Your task to perform on an android device: Empty the shopping cart on bestbuy.com. Image 0: 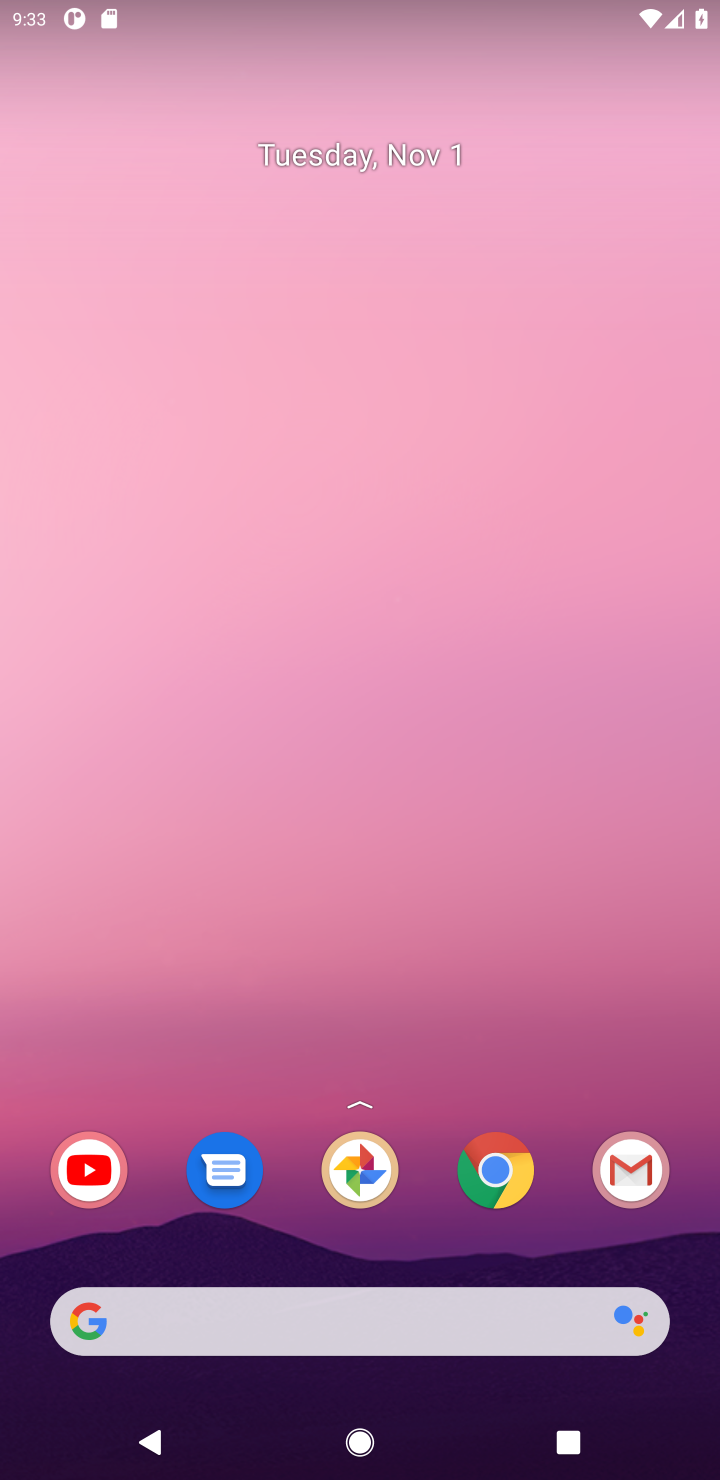
Step 0: click (494, 1182)
Your task to perform on an android device: Empty the shopping cart on bestbuy.com. Image 1: 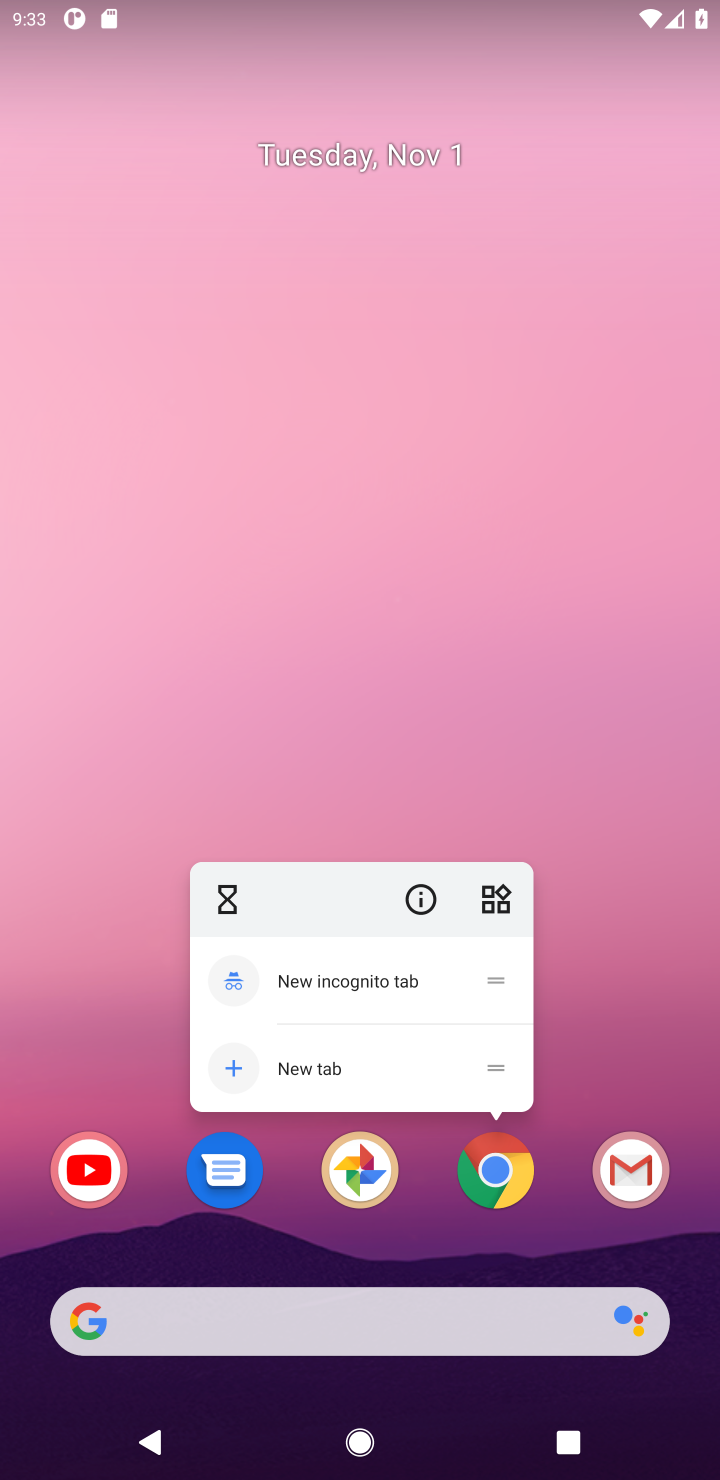
Step 1: click (506, 1189)
Your task to perform on an android device: Empty the shopping cart on bestbuy.com. Image 2: 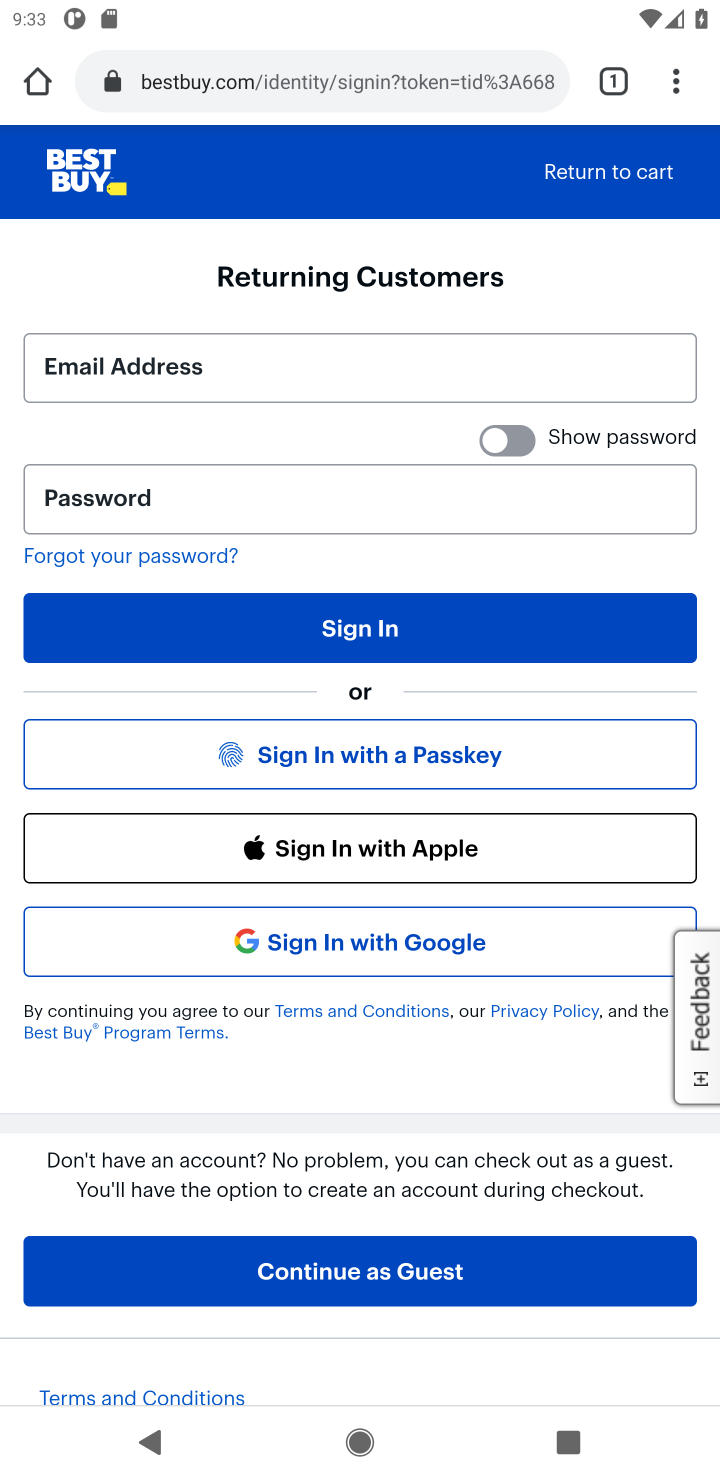
Step 2: click (387, 44)
Your task to perform on an android device: Empty the shopping cart on bestbuy.com. Image 3: 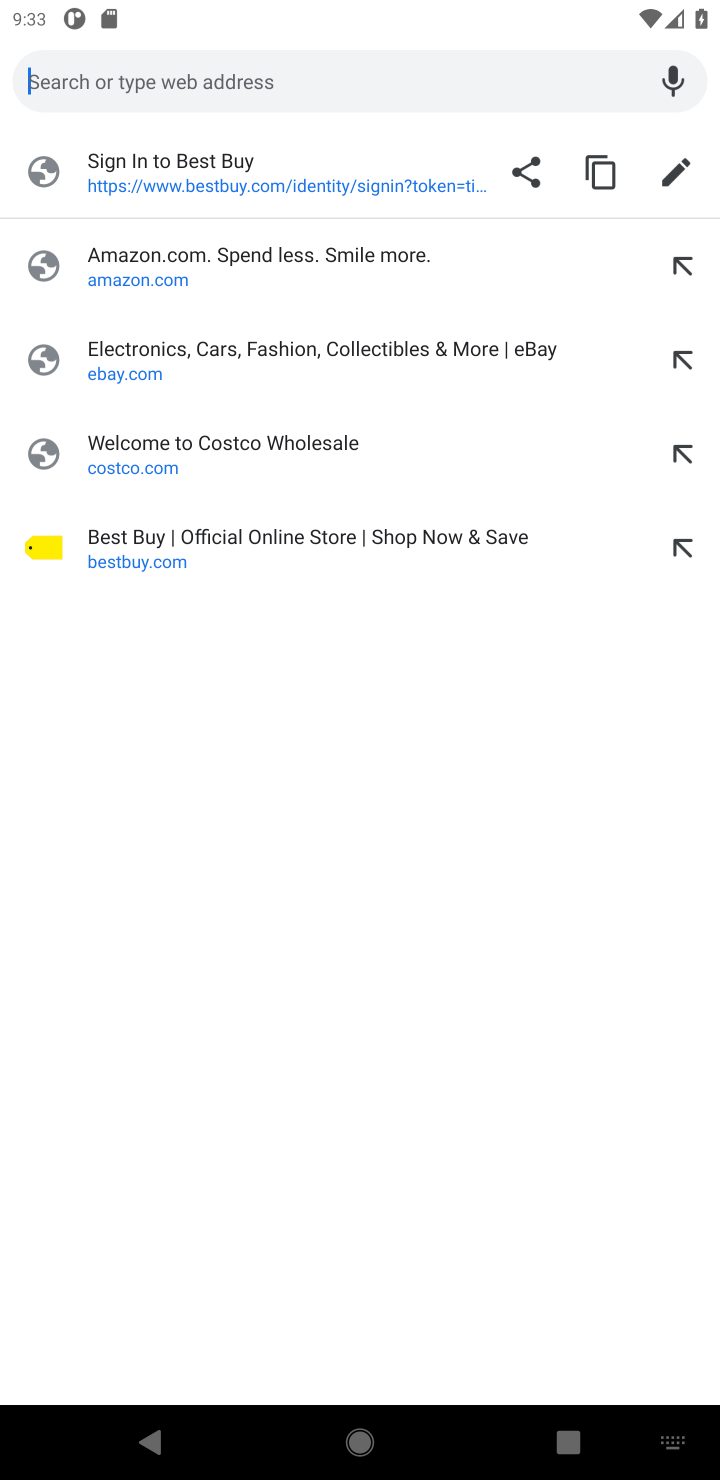
Step 3: type "bestbuy.com"
Your task to perform on an android device: Empty the shopping cart on bestbuy.com. Image 4: 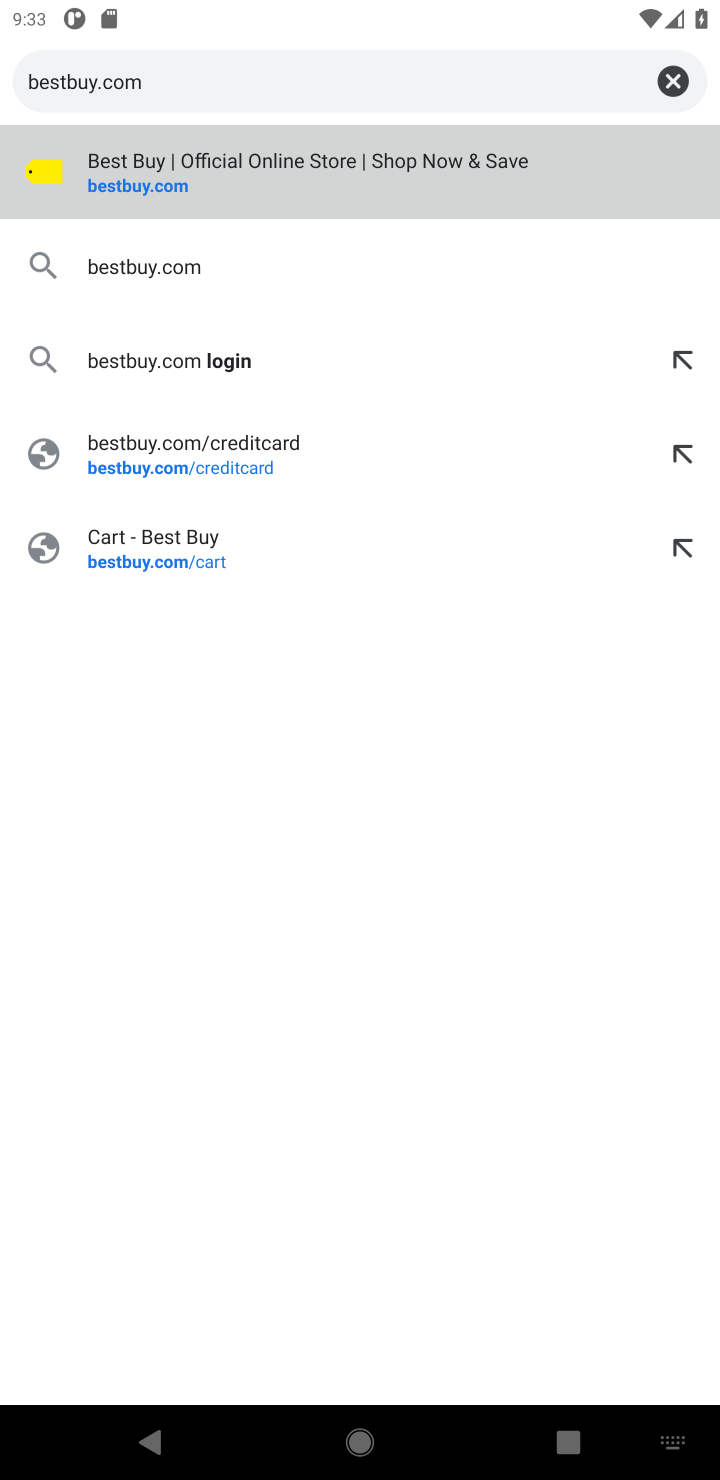
Step 4: press enter
Your task to perform on an android device: Empty the shopping cart on bestbuy.com. Image 5: 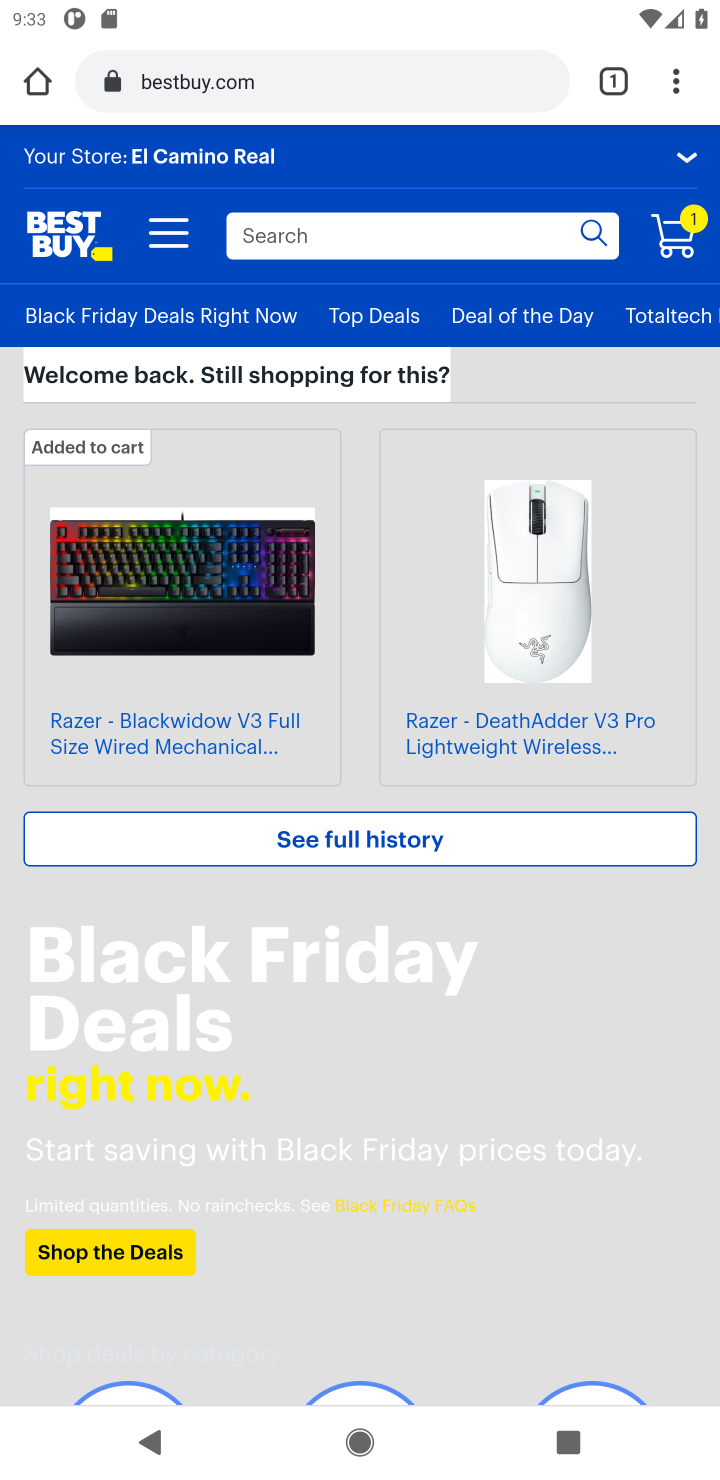
Step 5: click (669, 229)
Your task to perform on an android device: Empty the shopping cart on bestbuy.com. Image 6: 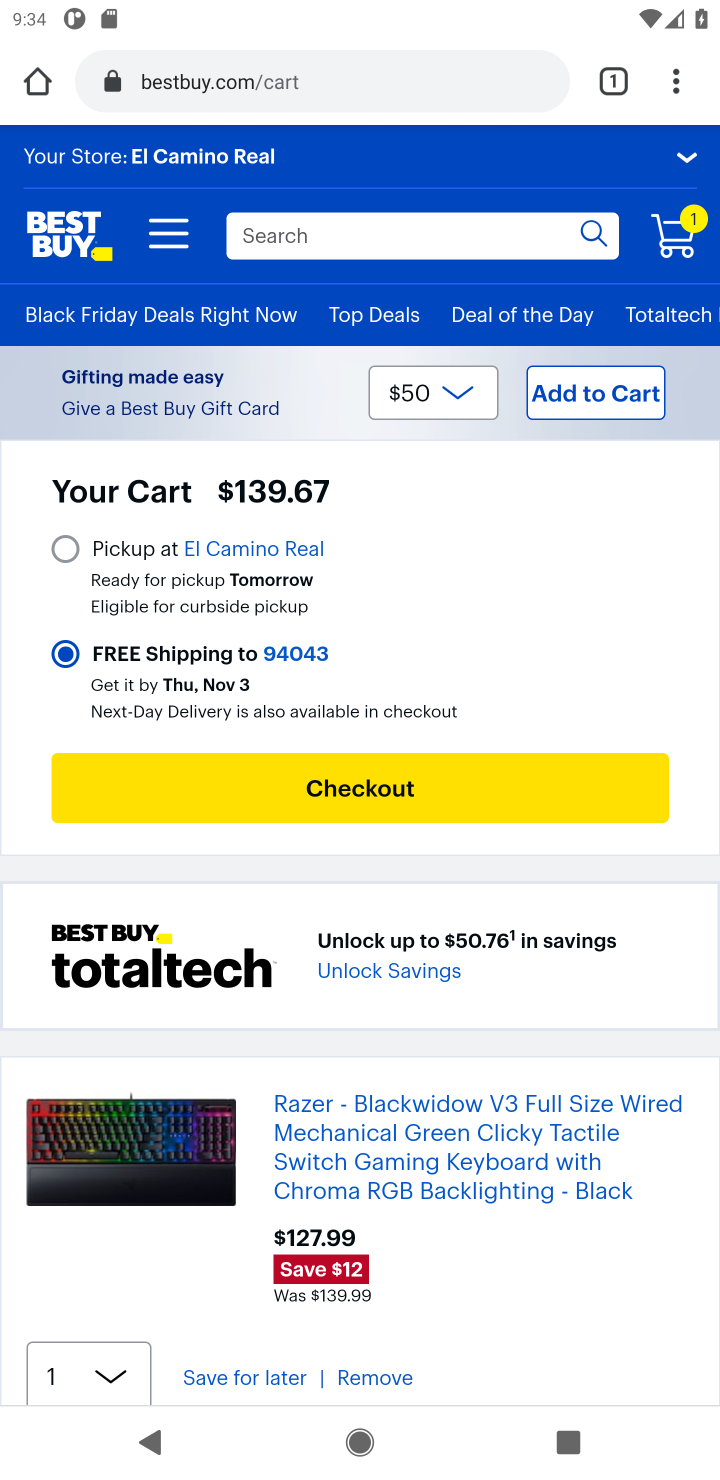
Step 6: click (382, 1378)
Your task to perform on an android device: Empty the shopping cart on bestbuy.com. Image 7: 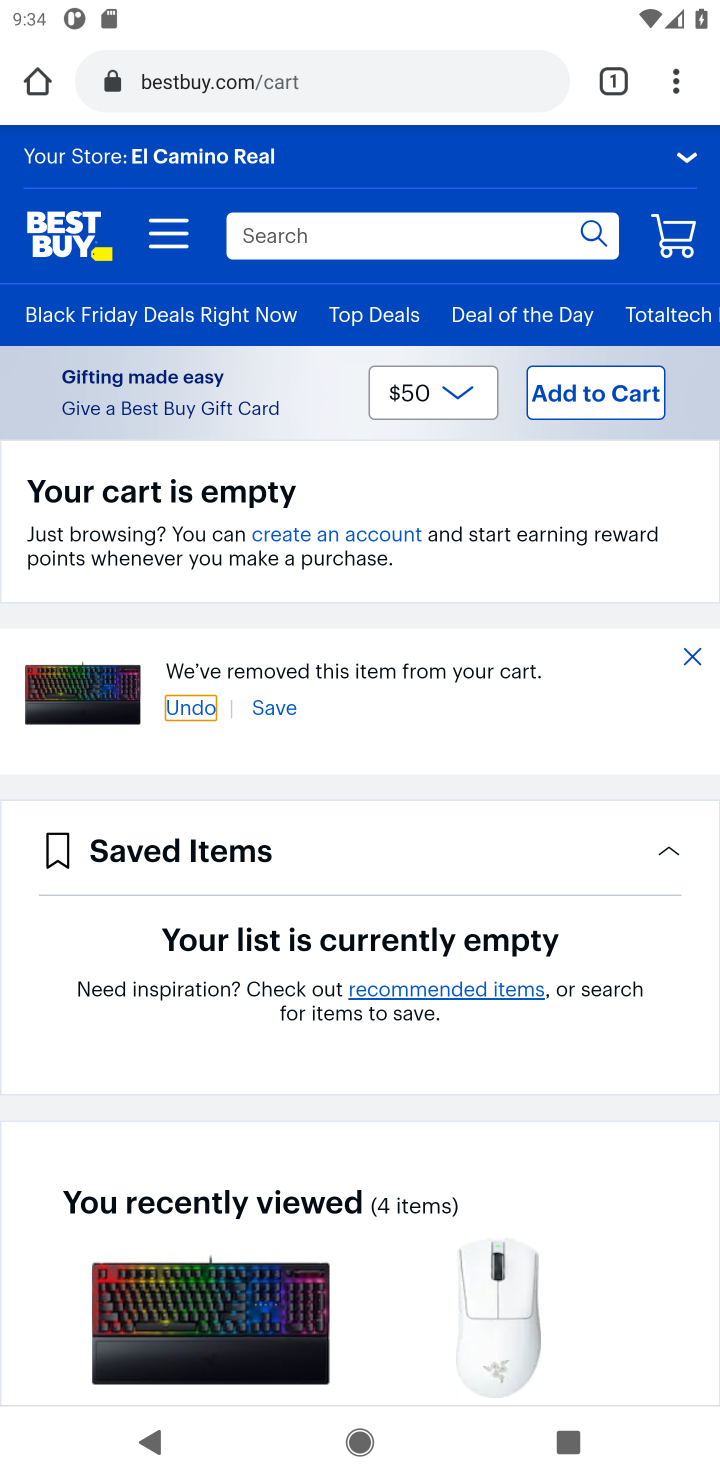
Step 7: task complete